Your task to perform on an android device: Open my contact list Image 0: 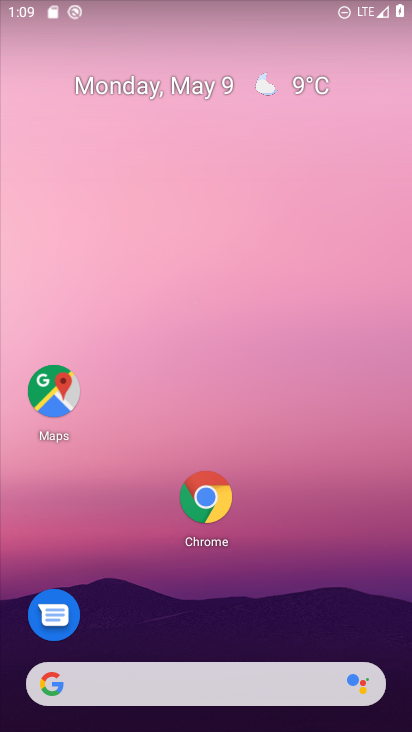
Step 0: drag from (302, 564) to (294, 77)
Your task to perform on an android device: Open my contact list Image 1: 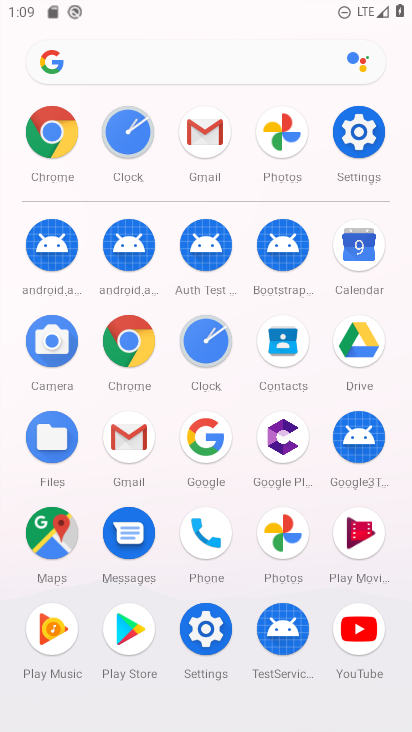
Step 1: click (289, 327)
Your task to perform on an android device: Open my contact list Image 2: 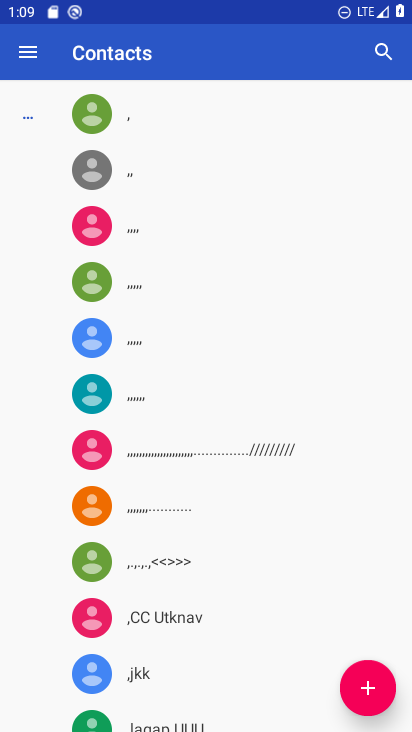
Step 2: task complete